Your task to perform on an android device: What's on my calendar today? Image 0: 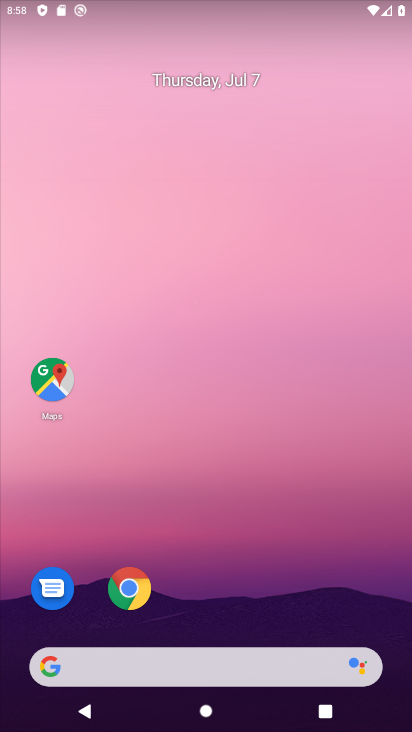
Step 0: click (216, 73)
Your task to perform on an android device: What's on my calendar today? Image 1: 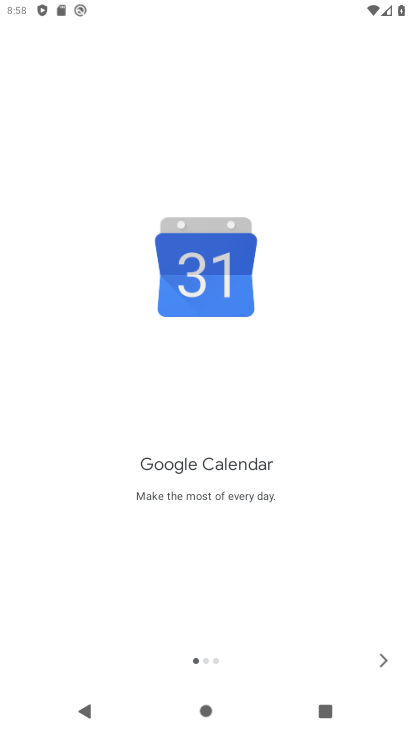
Step 1: click (382, 666)
Your task to perform on an android device: What's on my calendar today? Image 2: 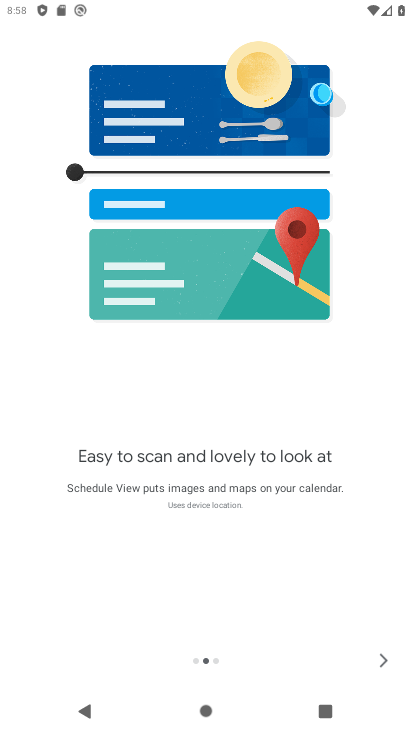
Step 2: click (382, 666)
Your task to perform on an android device: What's on my calendar today? Image 3: 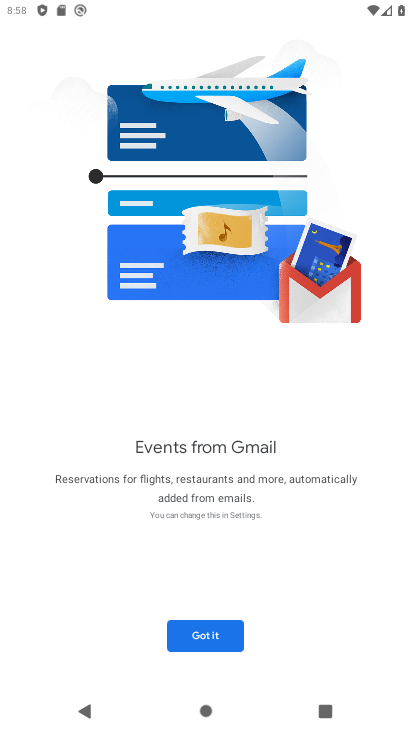
Step 3: click (203, 640)
Your task to perform on an android device: What's on my calendar today? Image 4: 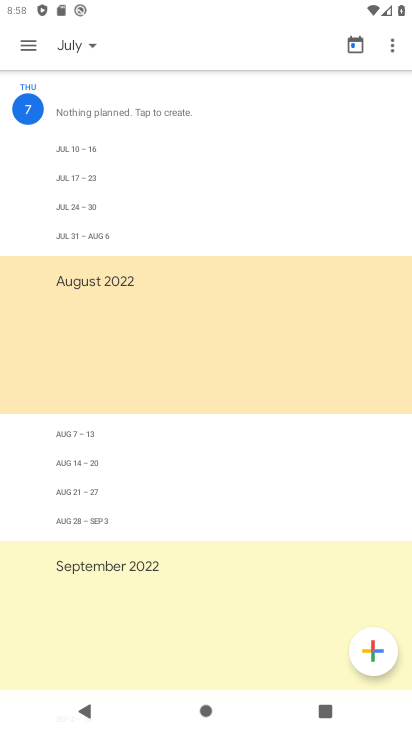
Step 4: click (33, 49)
Your task to perform on an android device: What's on my calendar today? Image 5: 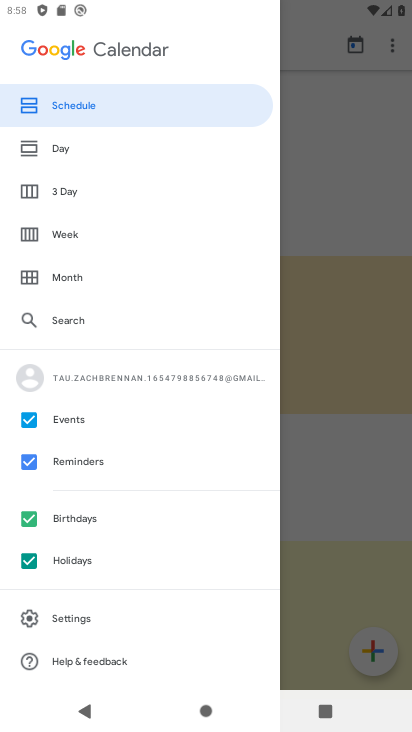
Step 5: click (112, 143)
Your task to perform on an android device: What's on my calendar today? Image 6: 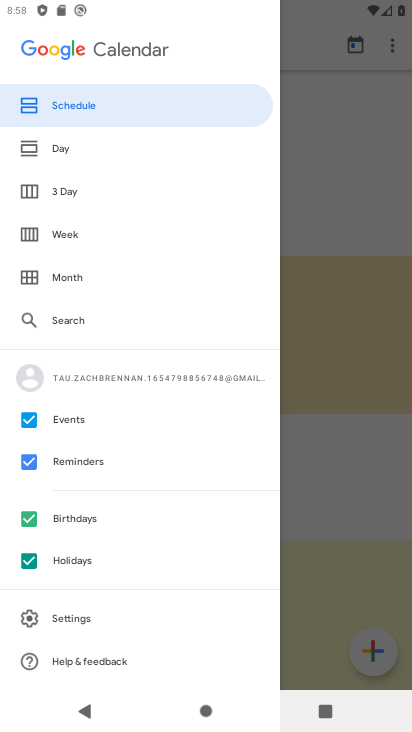
Step 6: click (84, 151)
Your task to perform on an android device: What's on my calendar today? Image 7: 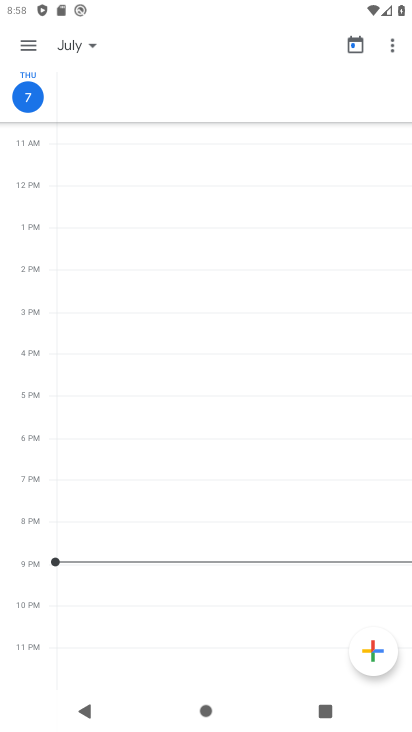
Step 7: click (85, 44)
Your task to perform on an android device: What's on my calendar today? Image 8: 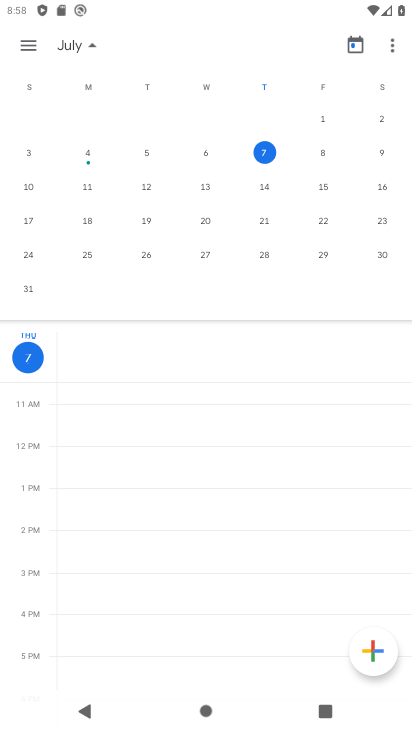
Step 8: click (260, 153)
Your task to perform on an android device: What's on my calendar today? Image 9: 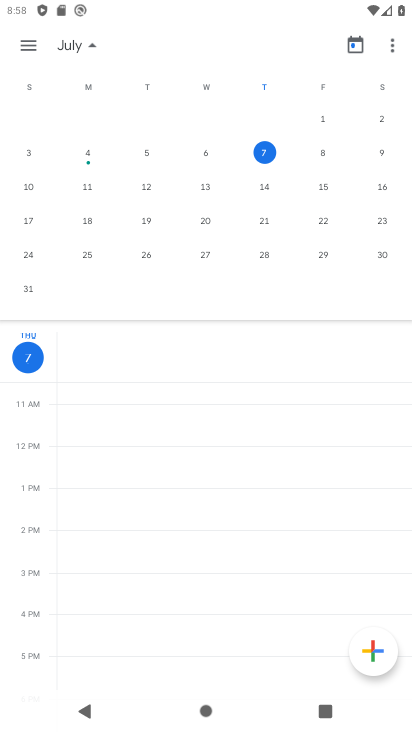
Step 9: task complete